Your task to perform on an android device: toggle notification dots Image 0: 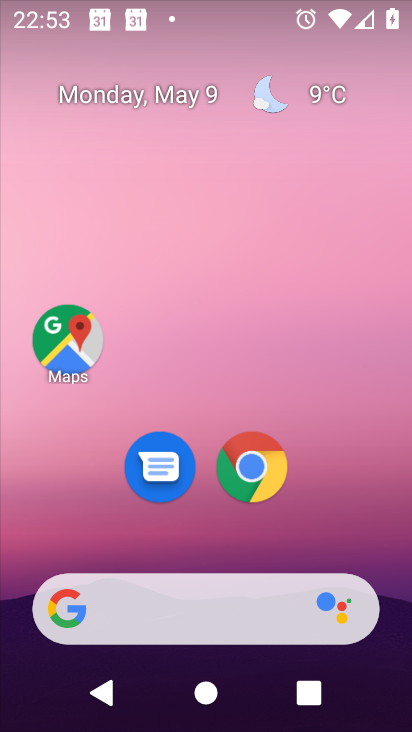
Step 0: drag from (387, 542) to (371, 6)
Your task to perform on an android device: toggle notification dots Image 1: 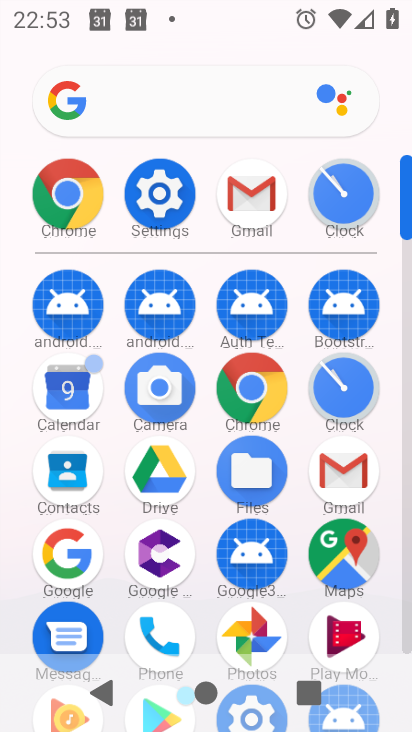
Step 1: click (165, 202)
Your task to perform on an android device: toggle notification dots Image 2: 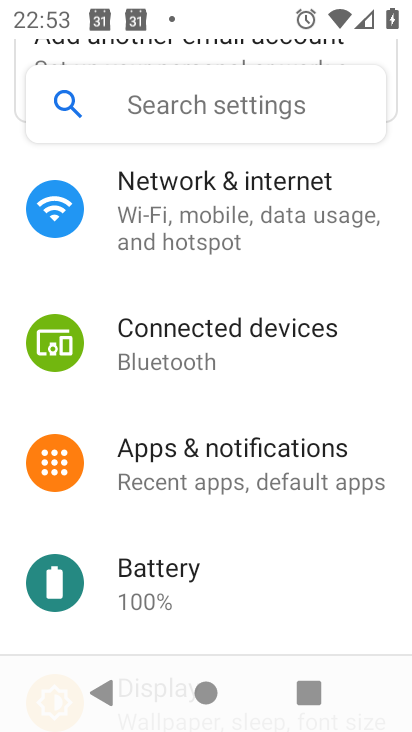
Step 2: click (210, 486)
Your task to perform on an android device: toggle notification dots Image 3: 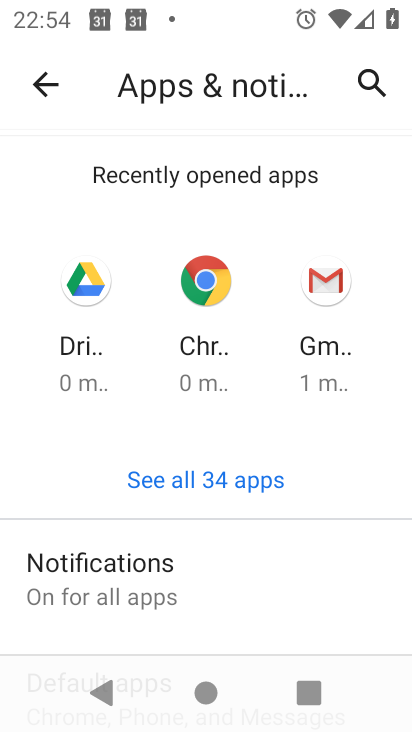
Step 3: drag from (220, 582) to (214, 223)
Your task to perform on an android device: toggle notification dots Image 4: 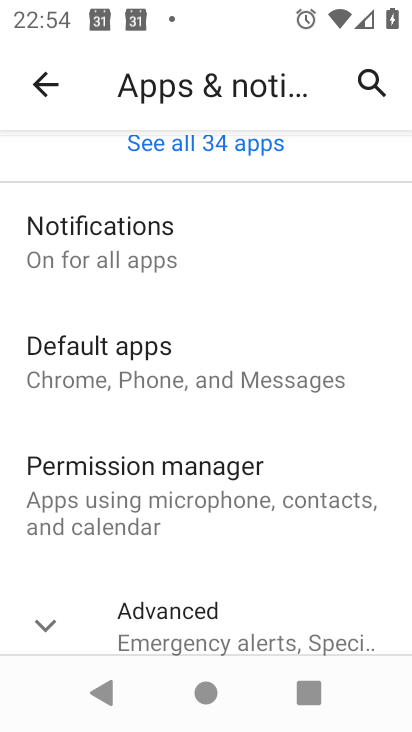
Step 4: click (113, 249)
Your task to perform on an android device: toggle notification dots Image 5: 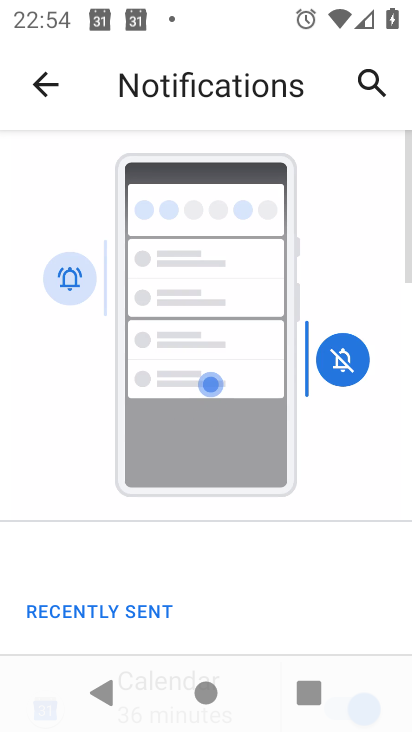
Step 5: drag from (174, 525) to (175, 138)
Your task to perform on an android device: toggle notification dots Image 6: 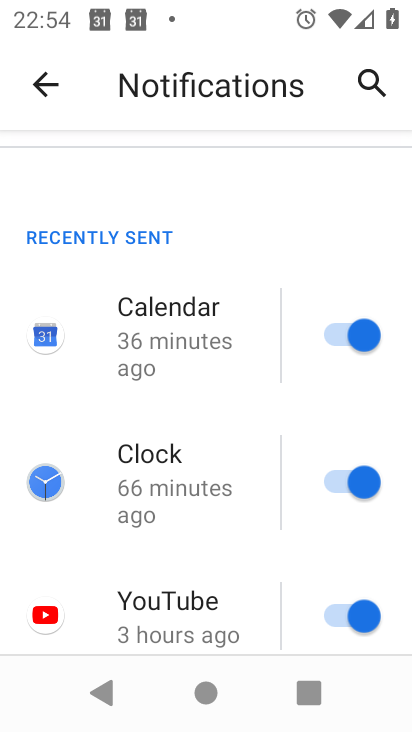
Step 6: drag from (168, 452) to (170, 143)
Your task to perform on an android device: toggle notification dots Image 7: 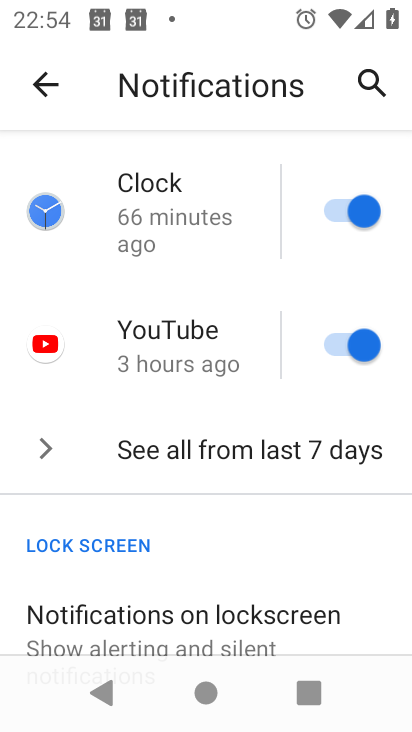
Step 7: drag from (156, 452) to (145, 180)
Your task to perform on an android device: toggle notification dots Image 8: 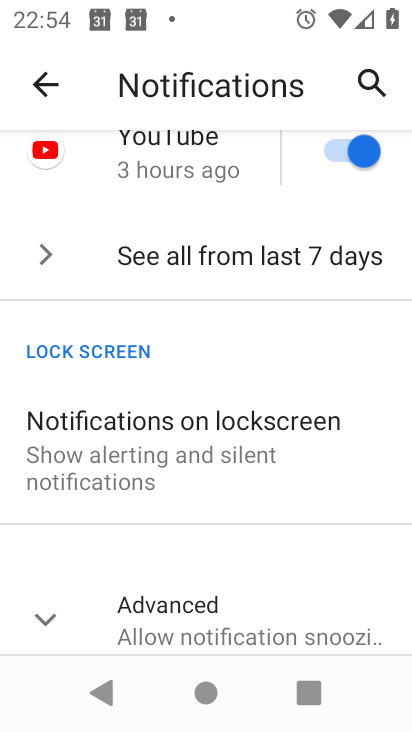
Step 8: drag from (75, 451) to (64, 139)
Your task to perform on an android device: toggle notification dots Image 9: 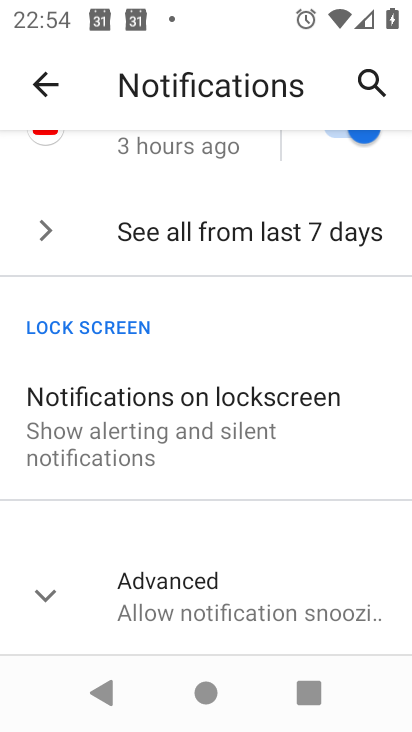
Step 9: click (41, 600)
Your task to perform on an android device: toggle notification dots Image 10: 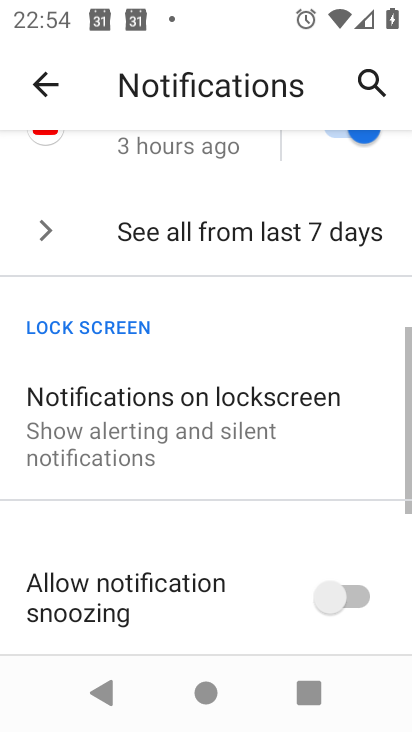
Step 10: drag from (180, 599) to (174, 153)
Your task to perform on an android device: toggle notification dots Image 11: 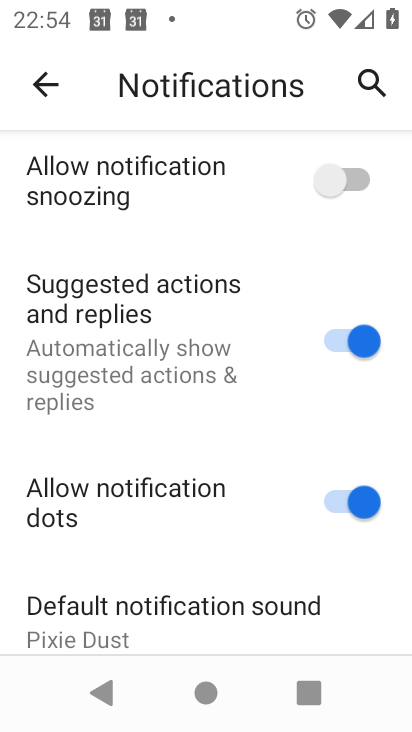
Step 11: drag from (152, 517) to (175, 226)
Your task to perform on an android device: toggle notification dots Image 12: 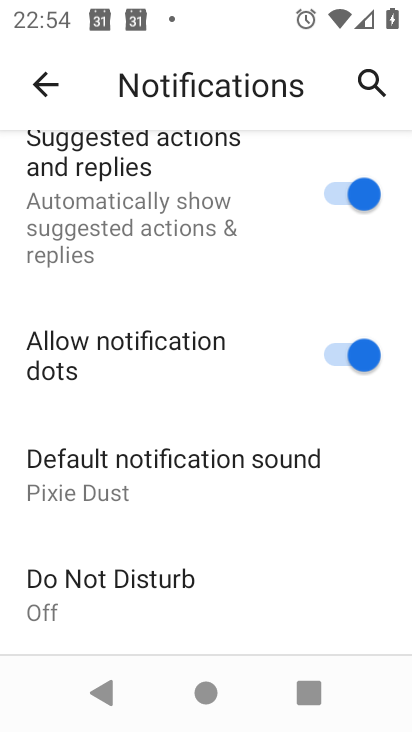
Step 12: click (361, 364)
Your task to perform on an android device: toggle notification dots Image 13: 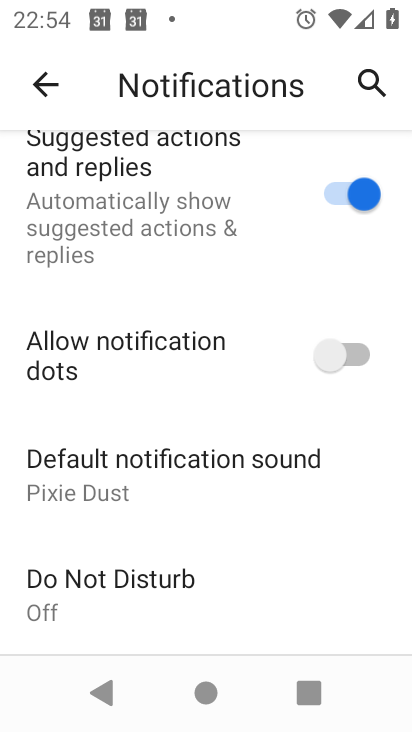
Step 13: task complete